Your task to perform on an android device: Play the last video I watched on Youtube Image 0: 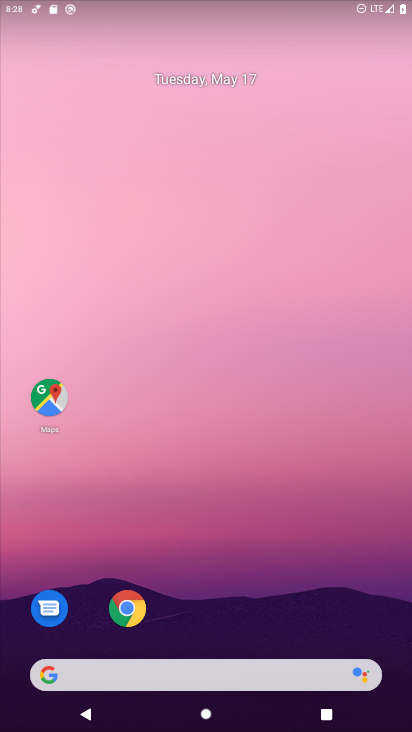
Step 0: drag from (226, 610) to (301, 108)
Your task to perform on an android device: Play the last video I watched on Youtube Image 1: 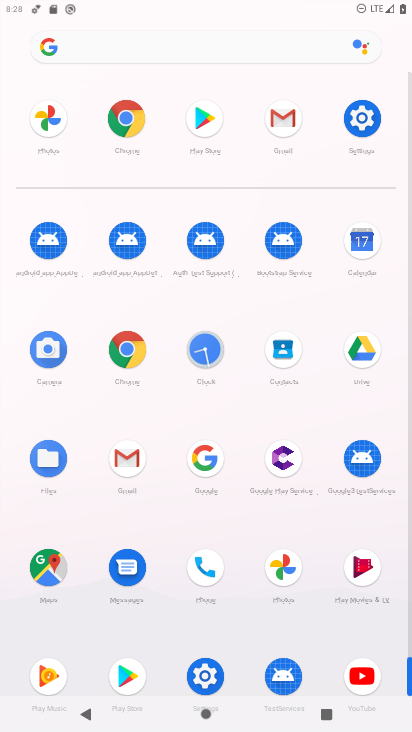
Step 1: click (364, 677)
Your task to perform on an android device: Play the last video I watched on Youtube Image 2: 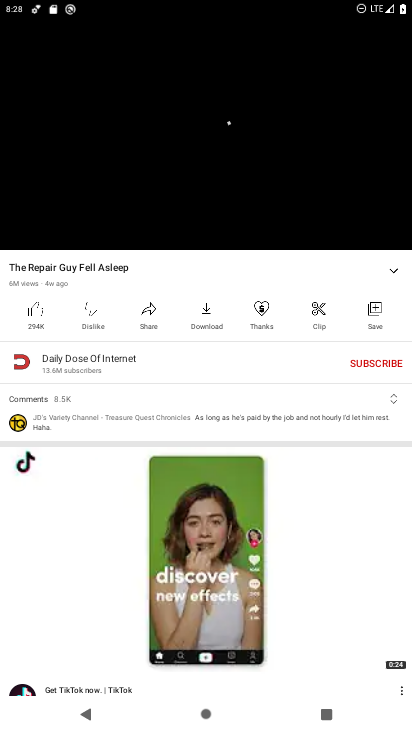
Step 2: drag from (138, 194) to (263, 696)
Your task to perform on an android device: Play the last video I watched on Youtube Image 3: 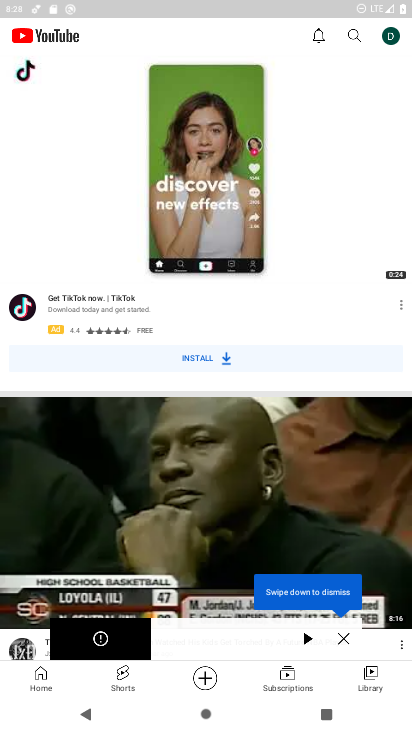
Step 3: click (347, 633)
Your task to perform on an android device: Play the last video I watched on Youtube Image 4: 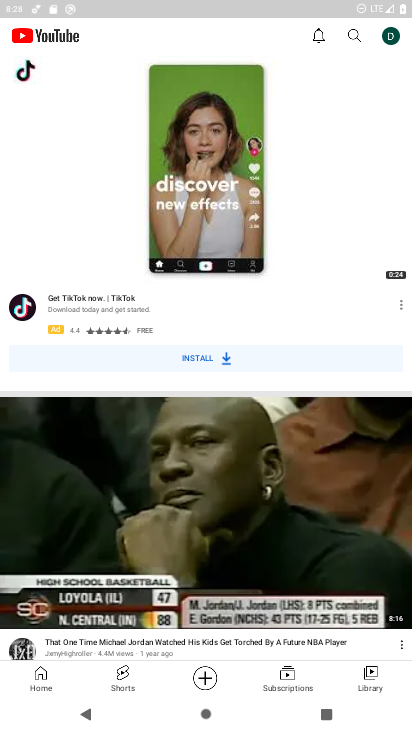
Step 4: click (376, 677)
Your task to perform on an android device: Play the last video I watched on Youtube Image 5: 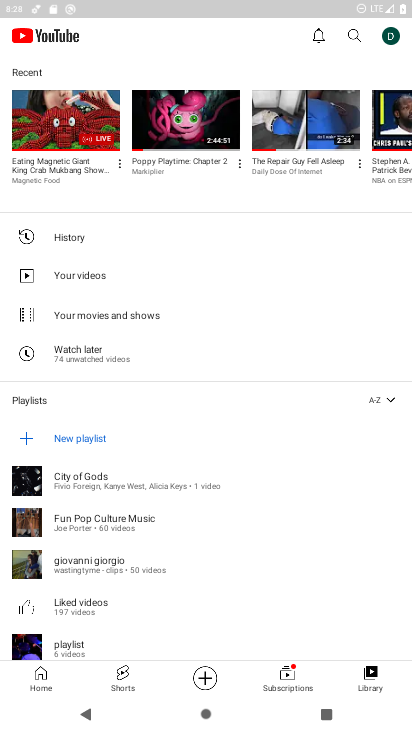
Step 5: click (75, 120)
Your task to perform on an android device: Play the last video I watched on Youtube Image 6: 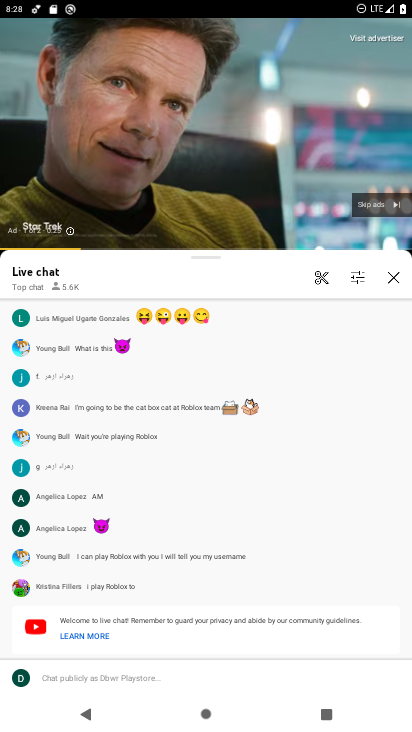
Step 6: task complete